Your task to perform on an android device: read, delete, or share a saved page in the chrome app Image 0: 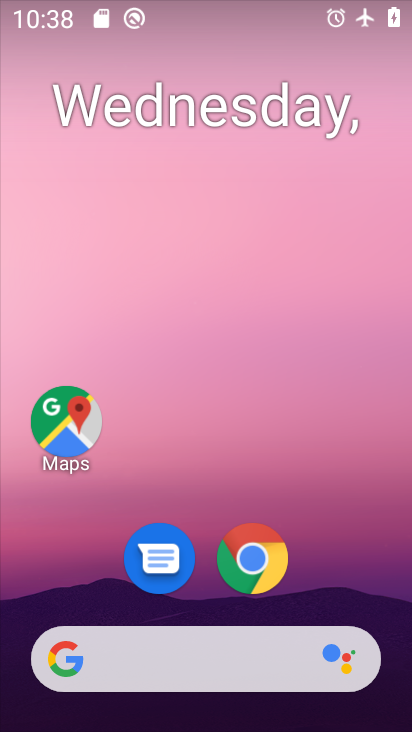
Step 0: drag from (377, 564) to (405, 95)
Your task to perform on an android device: read, delete, or share a saved page in the chrome app Image 1: 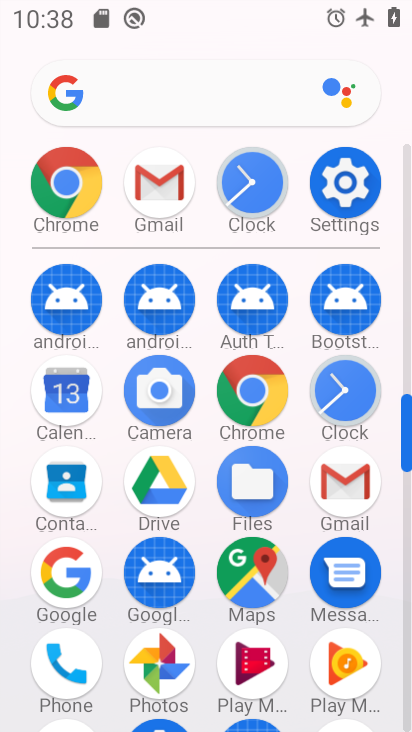
Step 1: click (255, 397)
Your task to perform on an android device: read, delete, or share a saved page in the chrome app Image 2: 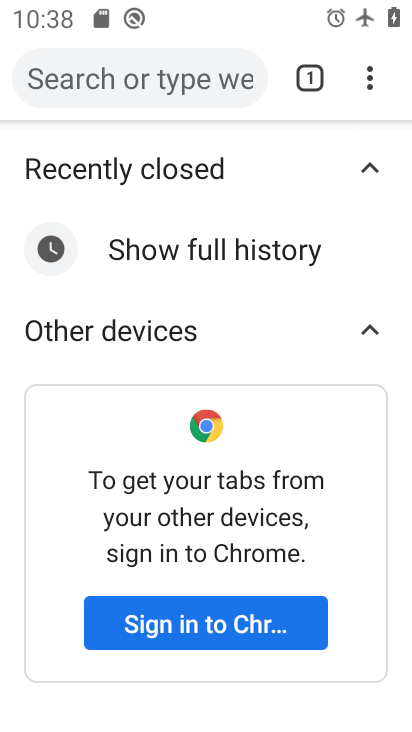
Step 2: click (366, 86)
Your task to perform on an android device: read, delete, or share a saved page in the chrome app Image 3: 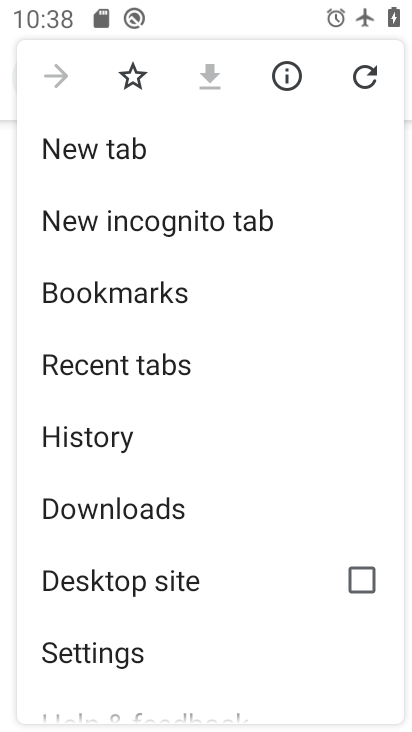
Step 3: drag from (260, 424) to (262, 313)
Your task to perform on an android device: read, delete, or share a saved page in the chrome app Image 4: 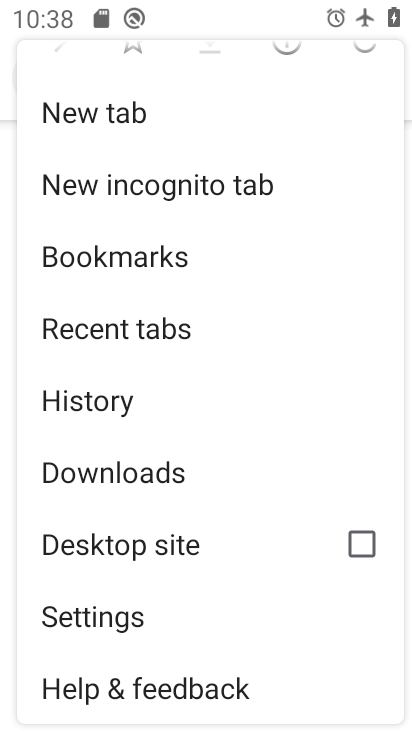
Step 4: click (187, 468)
Your task to perform on an android device: read, delete, or share a saved page in the chrome app Image 5: 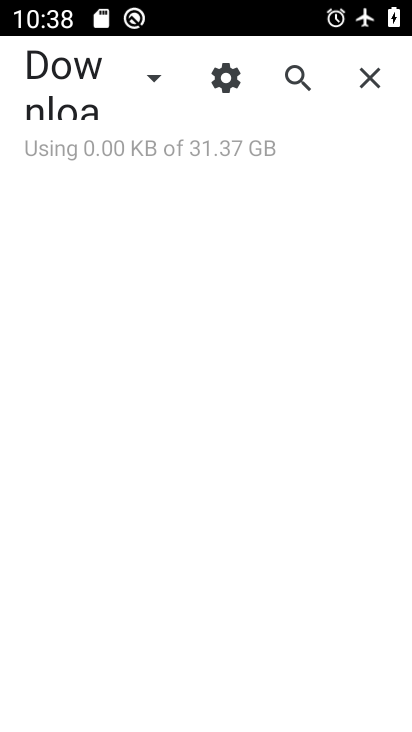
Step 5: click (154, 80)
Your task to perform on an android device: read, delete, or share a saved page in the chrome app Image 6: 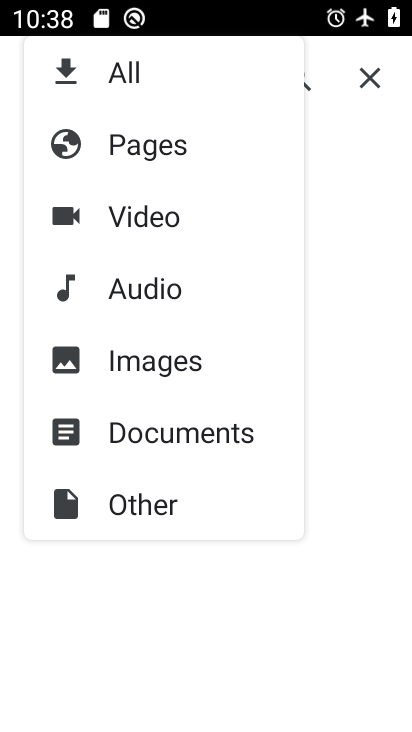
Step 6: click (157, 148)
Your task to perform on an android device: read, delete, or share a saved page in the chrome app Image 7: 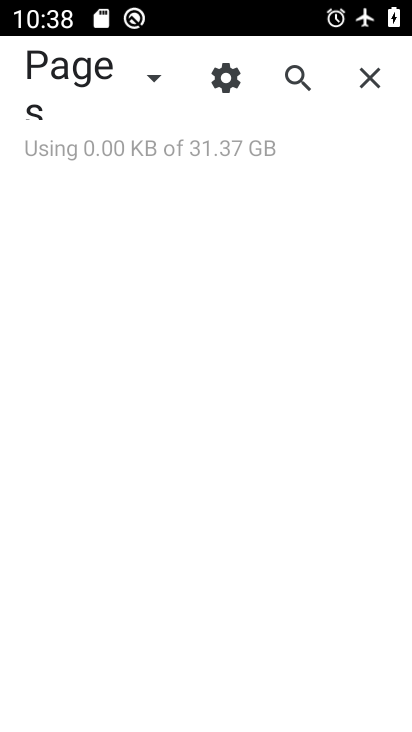
Step 7: task complete